Your task to perform on an android device: Play the last video I watched on Youtube Image 0: 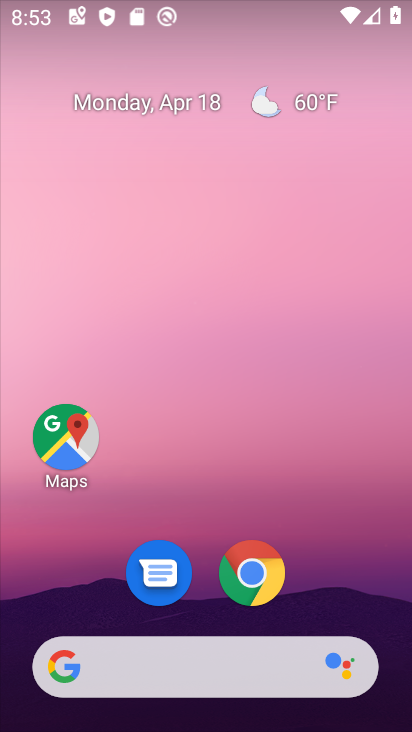
Step 0: drag from (338, 511) to (315, 85)
Your task to perform on an android device: Play the last video I watched on Youtube Image 1: 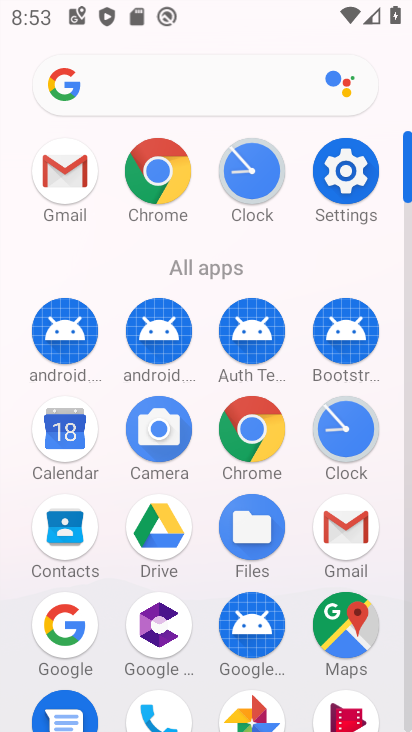
Step 1: drag from (205, 650) to (214, 212)
Your task to perform on an android device: Play the last video I watched on Youtube Image 2: 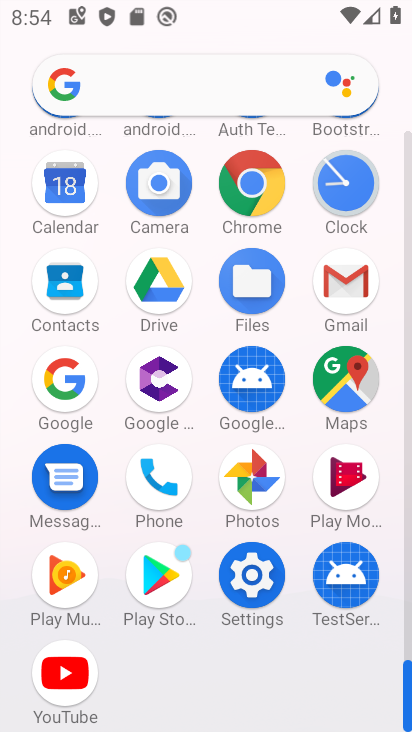
Step 2: click (68, 681)
Your task to perform on an android device: Play the last video I watched on Youtube Image 3: 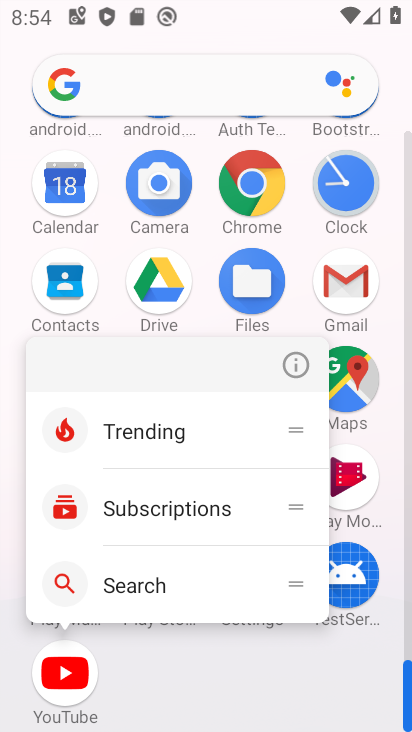
Step 3: click (64, 682)
Your task to perform on an android device: Play the last video I watched on Youtube Image 4: 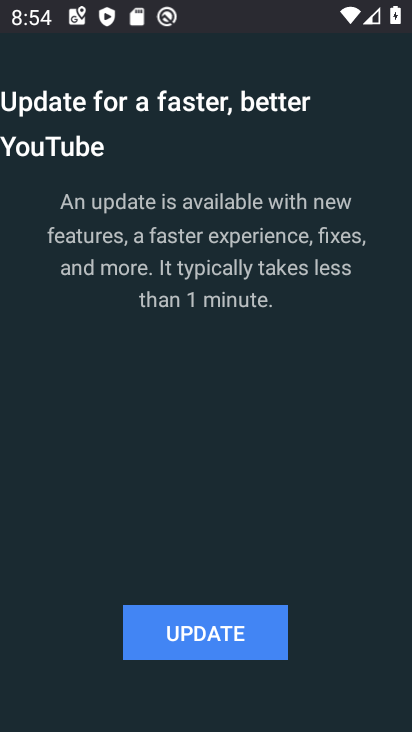
Step 4: click (216, 659)
Your task to perform on an android device: Play the last video I watched on Youtube Image 5: 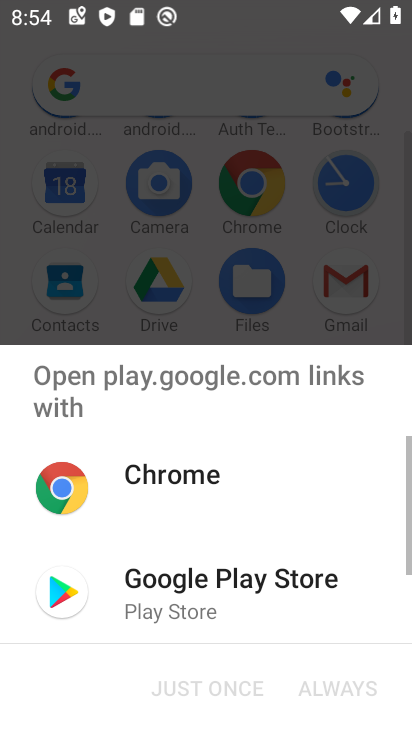
Step 5: click (216, 593)
Your task to perform on an android device: Play the last video I watched on Youtube Image 6: 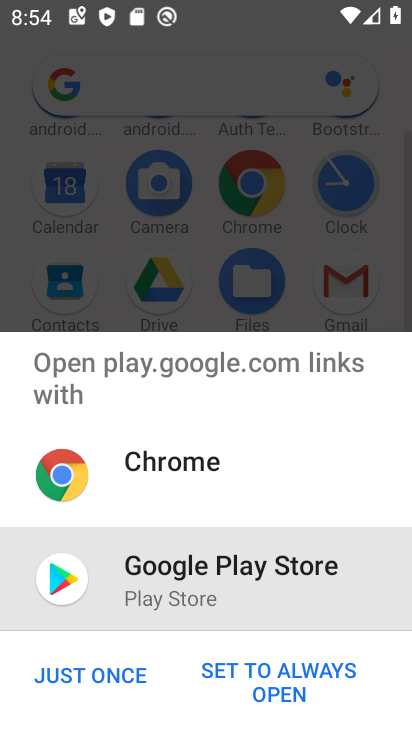
Step 6: click (216, 666)
Your task to perform on an android device: Play the last video I watched on Youtube Image 7: 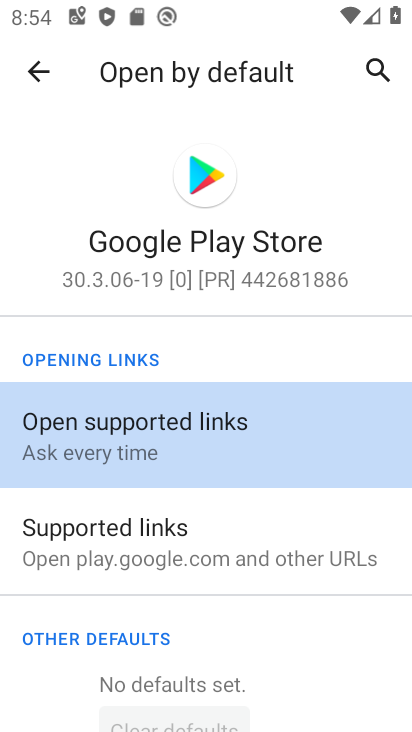
Step 7: press back button
Your task to perform on an android device: Play the last video I watched on Youtube Image 8: 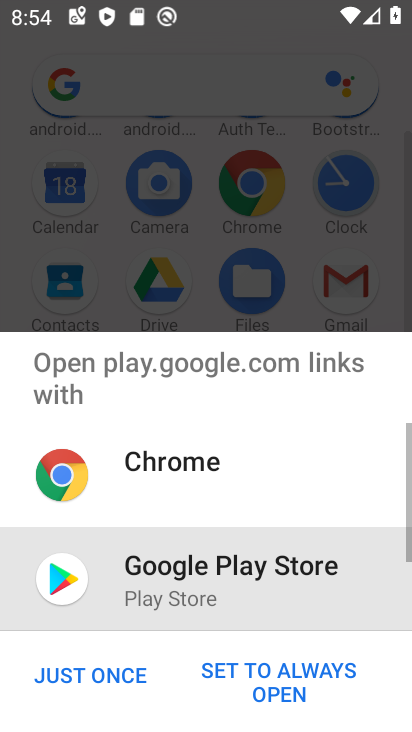
Step 8: click (104, 664)
Your task to perform on an android device: Play the last video I watched on Youtube Image 9: 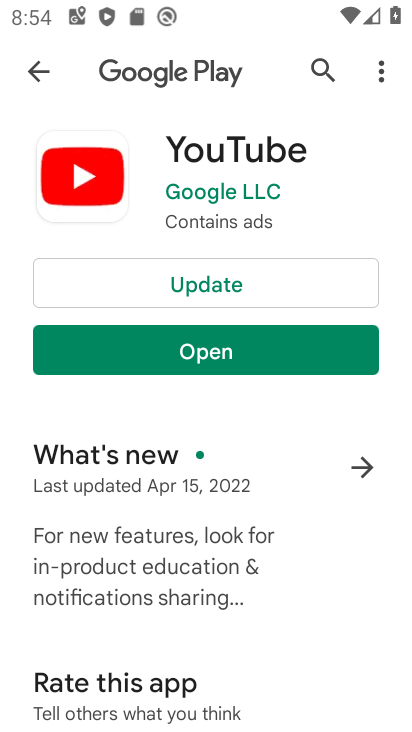
Step 9: click (225, 288)
Your task to perform on an android device: Play the last video I watched on Youtube Image 10: 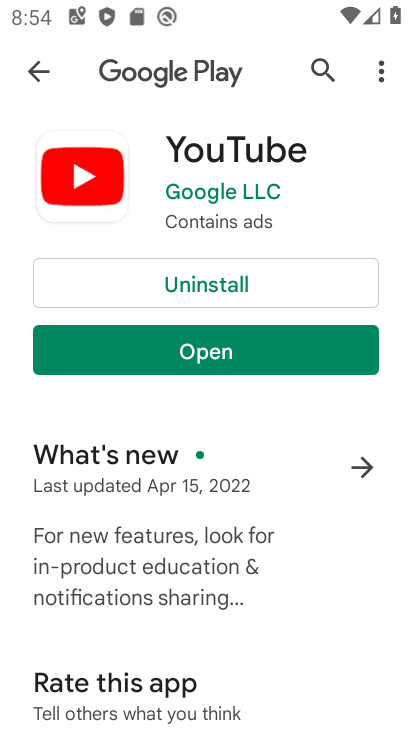
Step 10: click (211, 344)
Your task to perform on an android device: Play the last video I watched on Youtube Image 11: 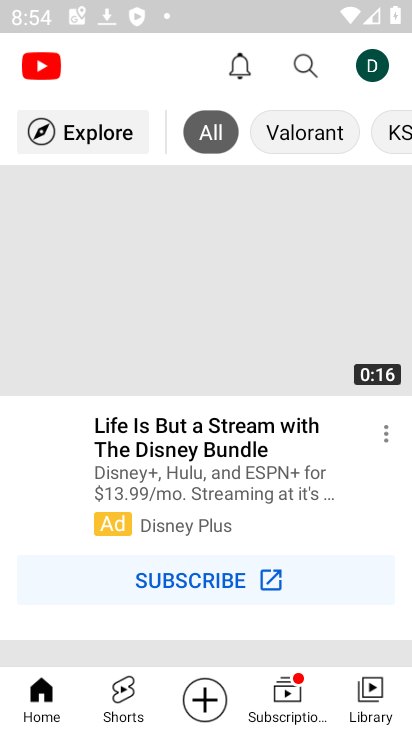
Step 11: click (377, 698)
Your task to perform on an android device: Play the last video I watched on Youtube Image 12: 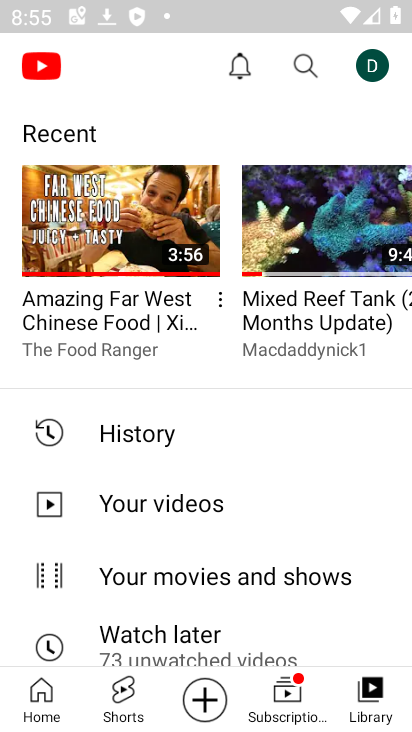
Step 12: click (47, 236)
Your task to perform on an android device: Play the last video I watched on Youtube Image 13: 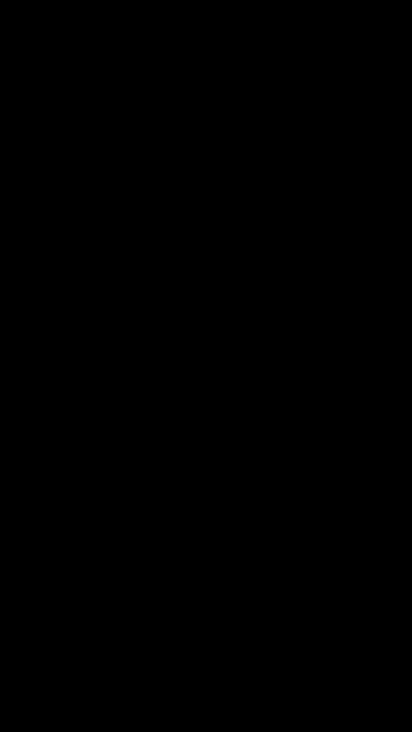
Step 13: click (215, 83)
Your task to perform on an android device: Play the last video I watched on Youtube Image 14: 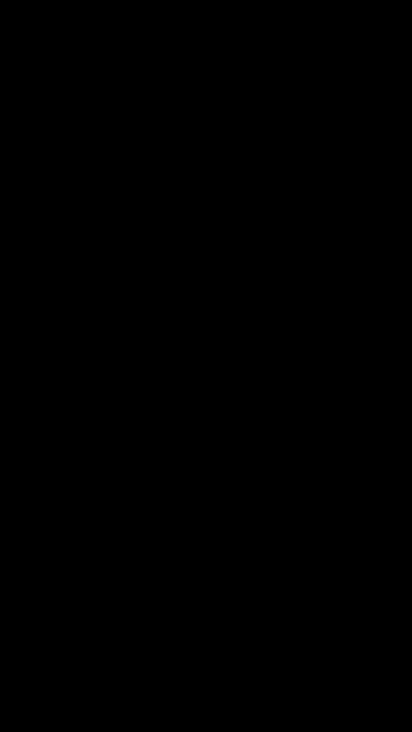
Step 14: click (215, 83)
Your task to perform on an android device: Play the last video I watched on Youtube Image 15: 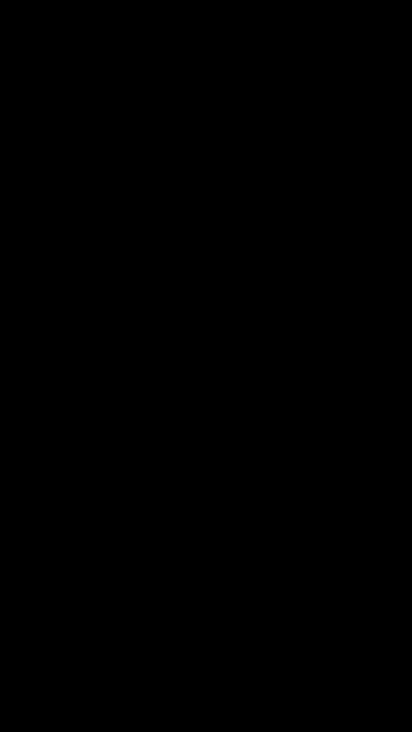
Step 15: click (246, 293)
Your task to perform on an android device: Play the last video I watched on Youtube Image 16: 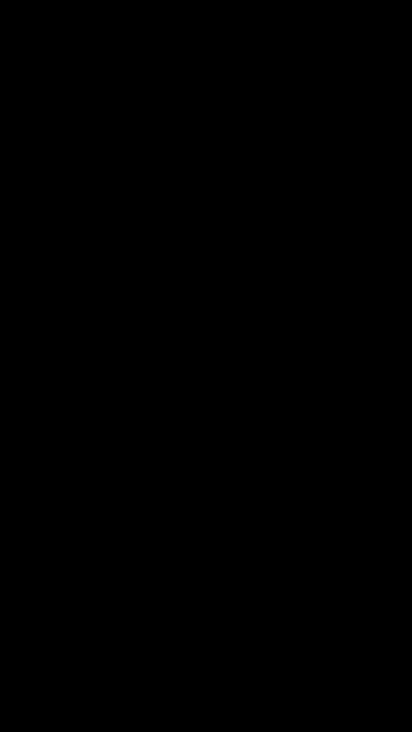
Step 16: click (246, 293)
Your task to perform on an android device: Play the last video I watched on Youtube Image 17: 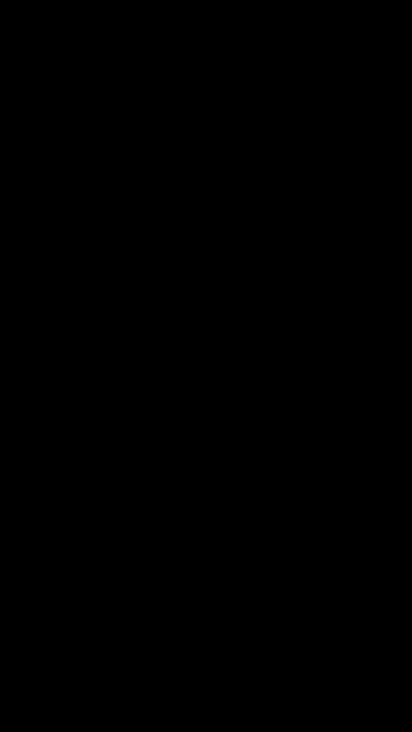
Step 17: click (247, 294)
Your task to perform on an android device: Play the last video I watched on Youtube Image 18: 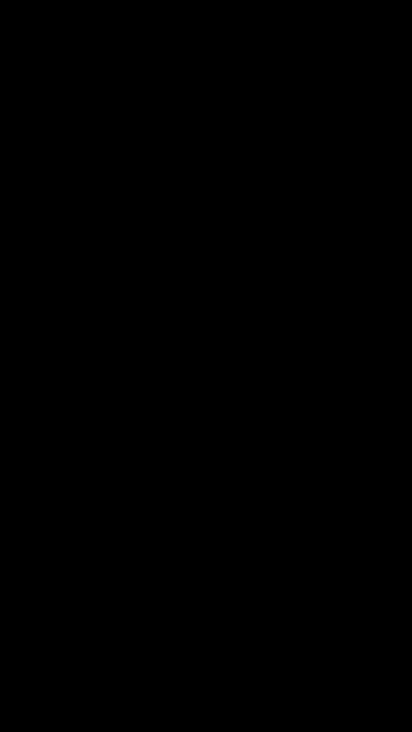
Step 18: click (247, 294)
Your task to perform on an android device: Play the last video I watched on Youtube Image 19: 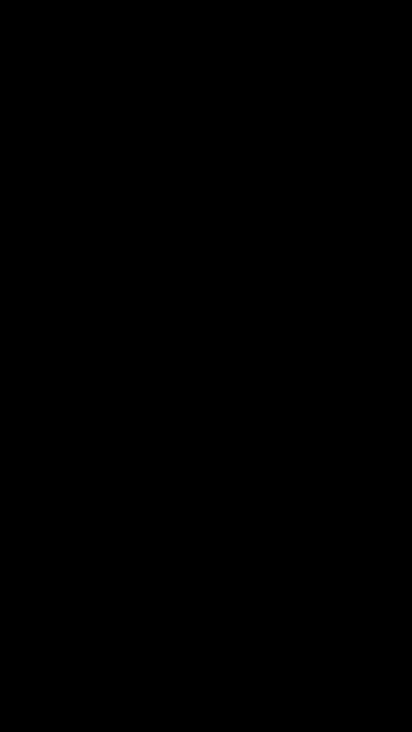
Step 19: click (247, 294)
Your task to perform on an android device: Play the last video I watched on Youtube Image 20: 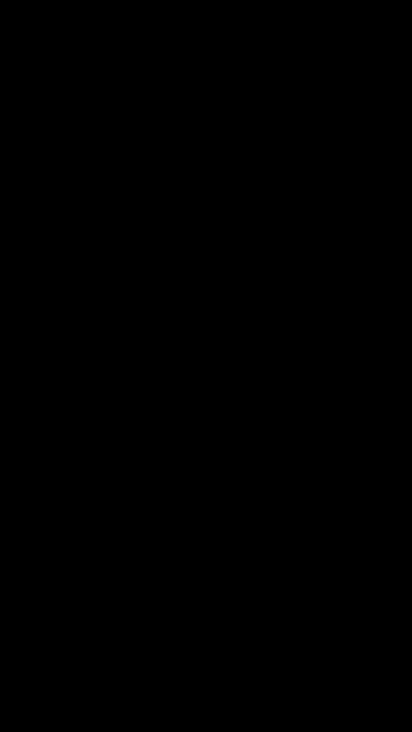
Step 20: click (212, 213)
Your task to perform on an android device: Play the last video I watched on Youtube Image 21: 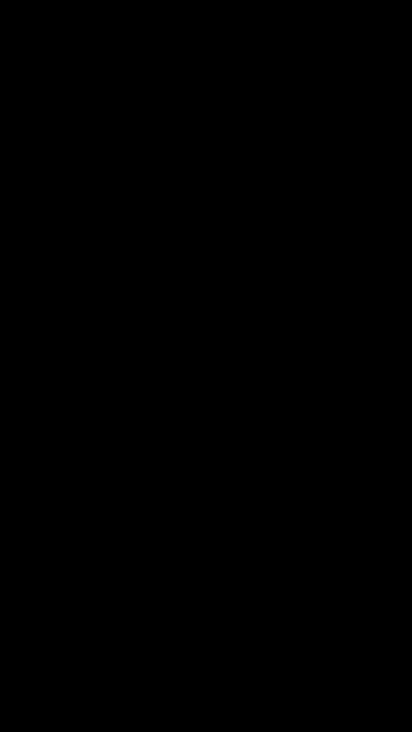
Step 21: click (212, 213)
Your task to perform on an android device: Play the last video I watched on Youtube Image 22: 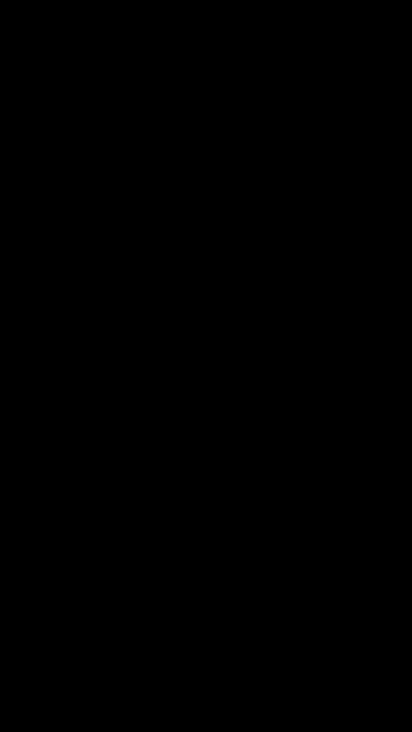
Step 22: drag from (288, 499) to (221, 74)
Your task to perform on an android device: Play the last video I watched on Youtube Image 23: 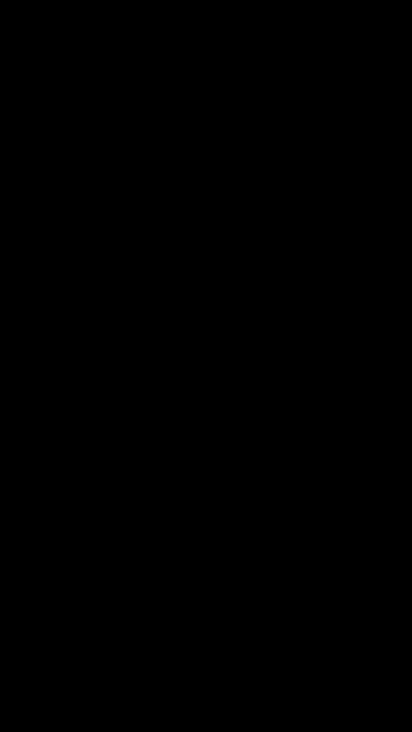
Step 23: drag from (219, 74) to (135, 611)
Your task to perform on an android device: Play the last video I watched on Youtube Image 24: 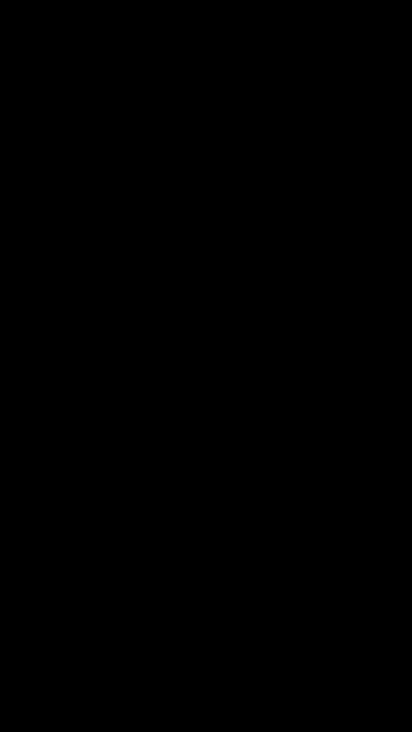
Step 24: drag from (204, 543) to (218, 51)
Your task to perform on an android device: Play the last video I watched on Youtube Image 25: 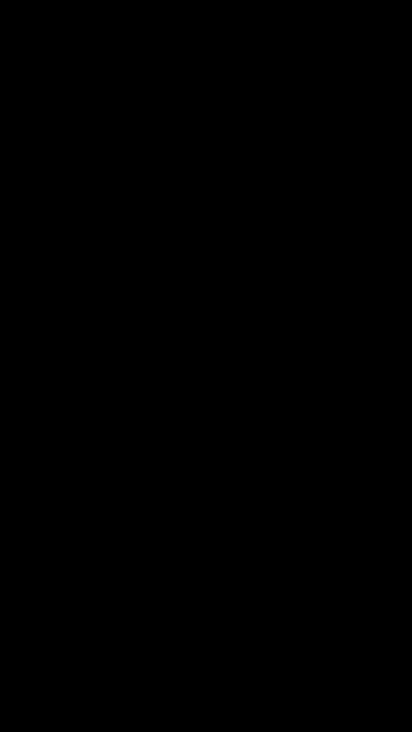
Step 25: drag from (215, 652) to (232, 128)
Your task to perform on an android device: Play the last video I watched on Youtube Image 26: 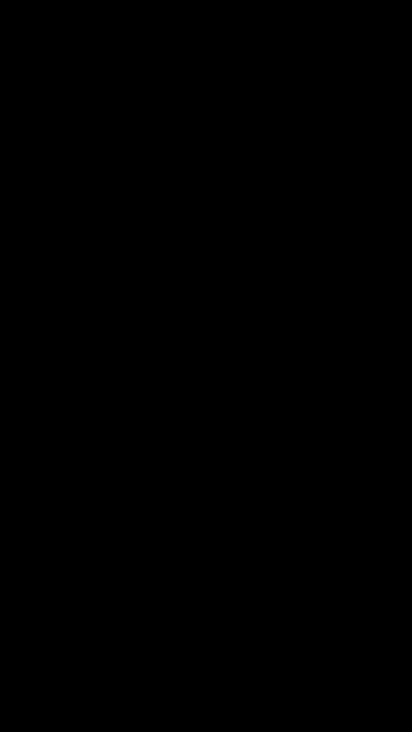
Step 26: click (232, 128)
Your task to perform on an android device: Play the last video I watched on Youtube Image 27: 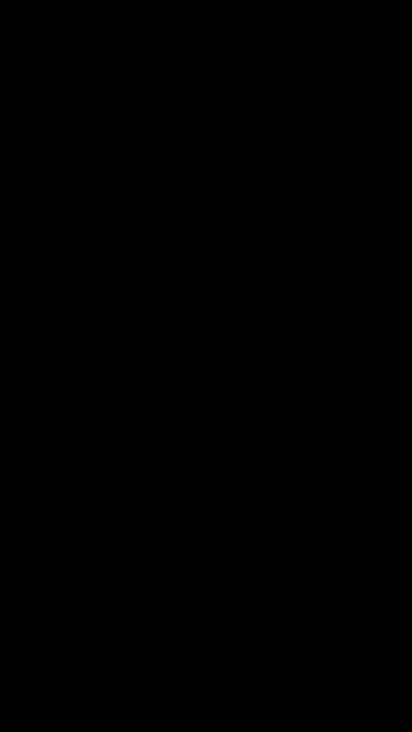
Step 27: click (232, 128)
Your task to perform on an android device: Play the last video I watched on Youtube Image 28: 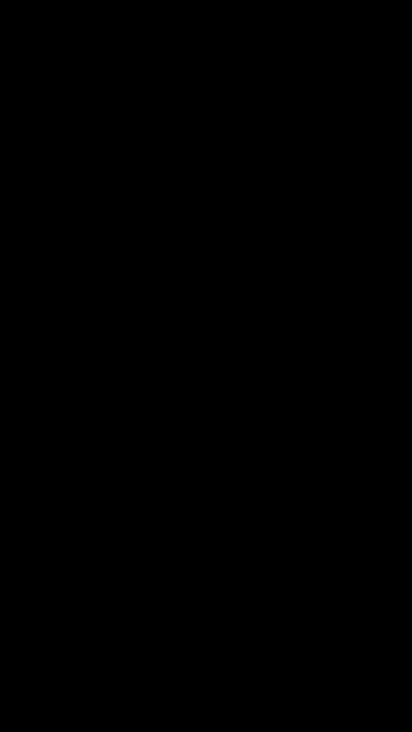
Step 28: task complete